Your task to perform on an android device: Go to Amazon Image 0: 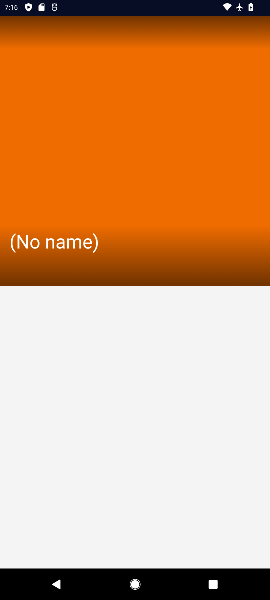
Step 0: press home button
Your task to perform on an android device: Go to Amazon Image 1: 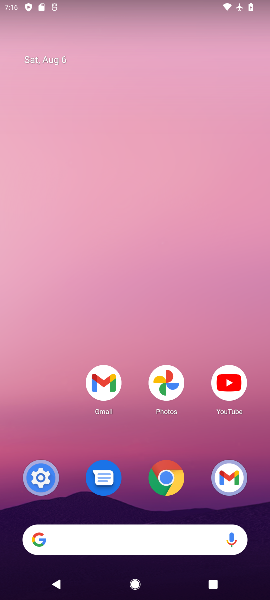
Step 1: click (28, 538)
Your task to perform on an android device: Go to Amazon Image 2: 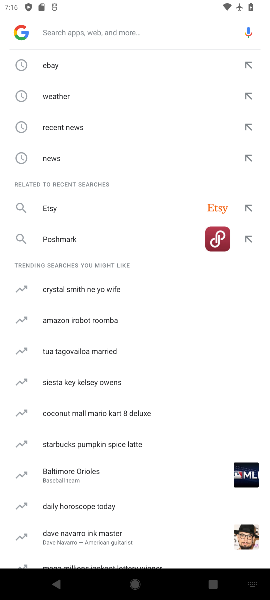
Step 2: type " Amazon"
Your task to perform on an android device: Go to Amazon Image 3: 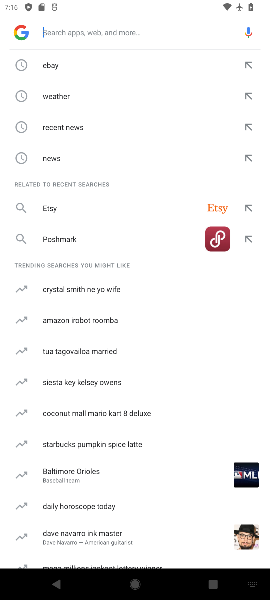
Step 3: click (88, 28)
Your task to perform on an android device: Go to Amazon Image 4: 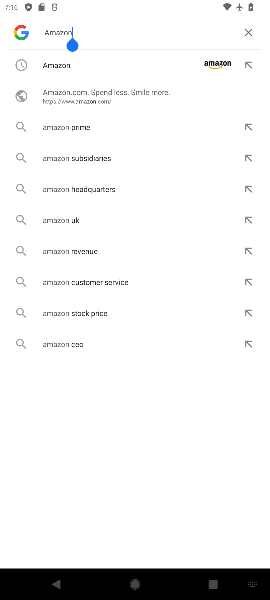
Step 4: press enter
Your task to perform on an android device: Go to Amazon Image 5: 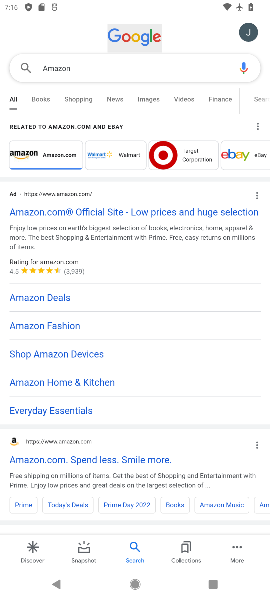
Step 5: click (33, 461)
Your task to perform on an android device: Go to Amazon Image 6: 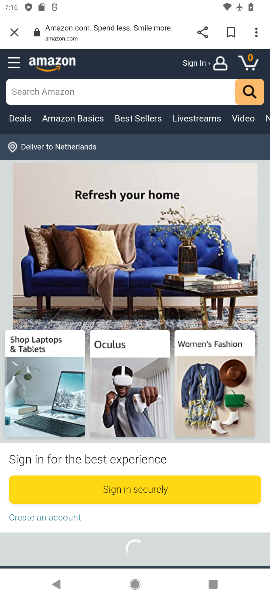
Step 6: task complete